Your task to perform on an android device: star an email in the gmail app Image 0: 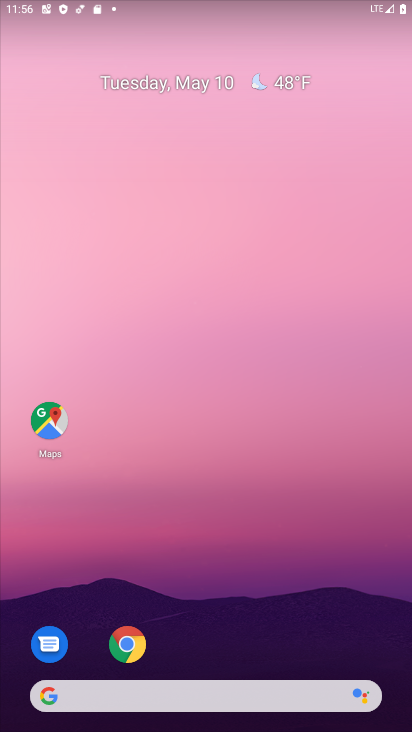
Step 0: drag from (233, 640) to (239, 102)
Your task to perform on an android device: star an email in the gmail app Image 1: 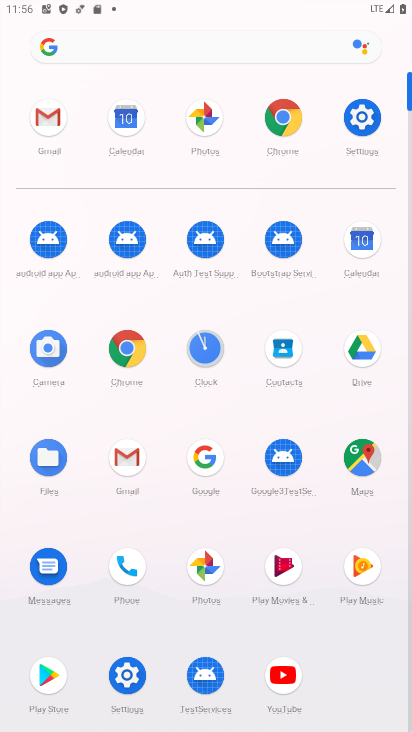
Step 1: click (113, 480)
Your task to perform on an android device: star an email in the gmail app Image 2: 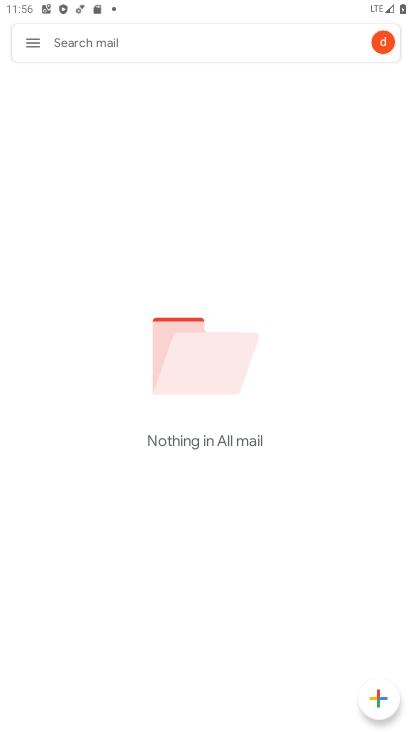
Step 2: click (48, 32)
Your task to perform on an android device: star an email in the gmail app Image 3: 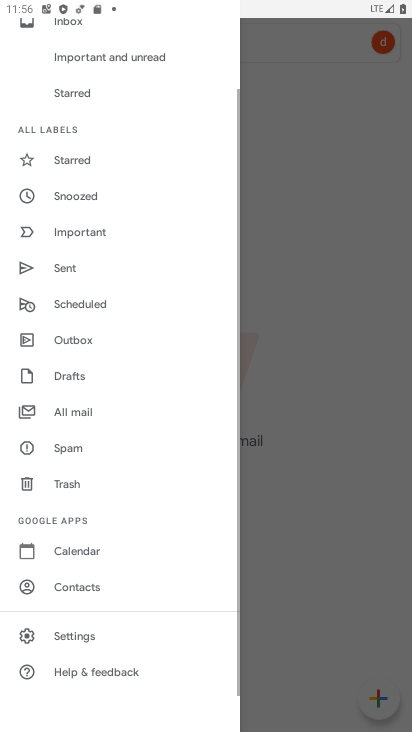
Step 3: task complete